Your task to perform on an android device: Show me the alarms in the clock app Image 0: 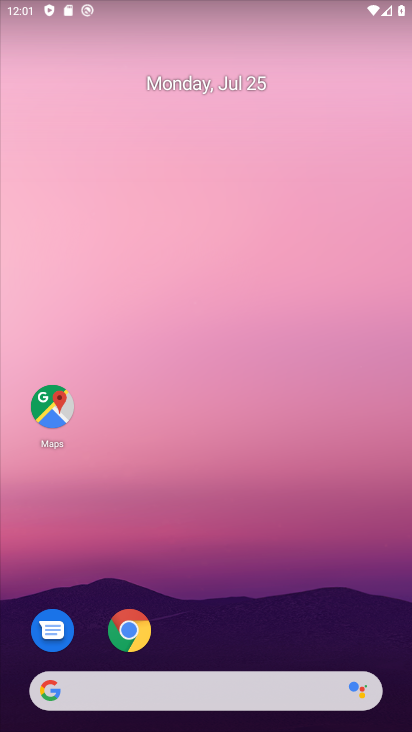
Step 0: drag from (184, 248) to (176, 88)
Your task to perform on an android device: Show me the alarms in the clock app Image 1: 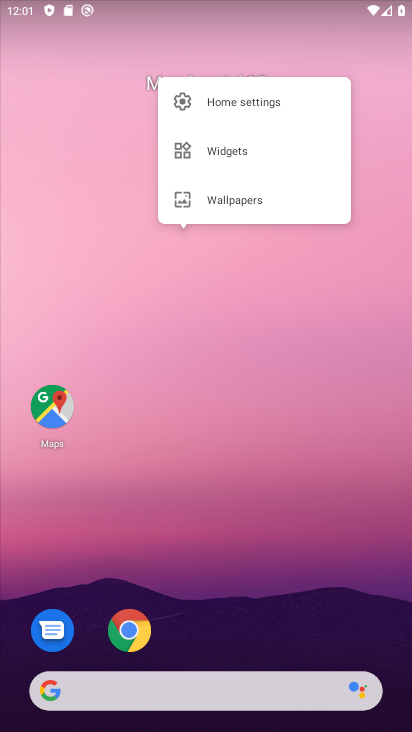
Step 1: drag from (282, 690) to (212, 226)
Your task to perform on an android device: Show me the alarms in the clock app Image 2: 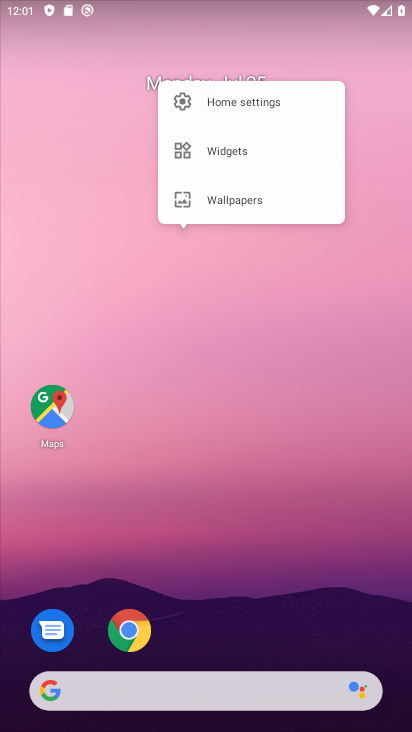
Step 2: drag from (207, 634) to (76, 179)
Your task to perform on an android device: Show me the alarms in the clock app Image 3: 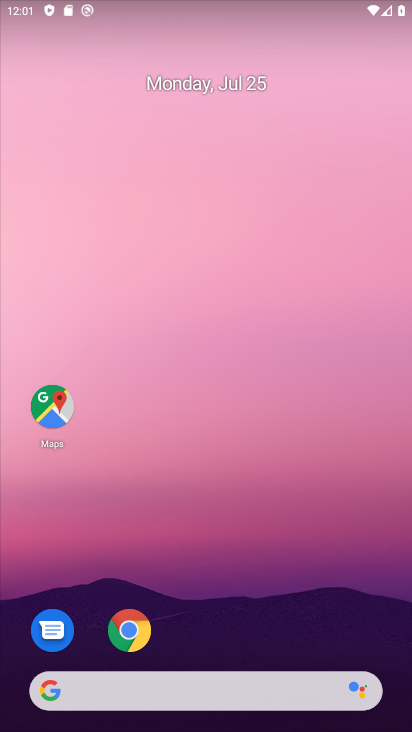
Step 3: drag from (126, 379) to (111, 115)
Your task to perform on an android device: Show me the alarms in the clock app Image 4: 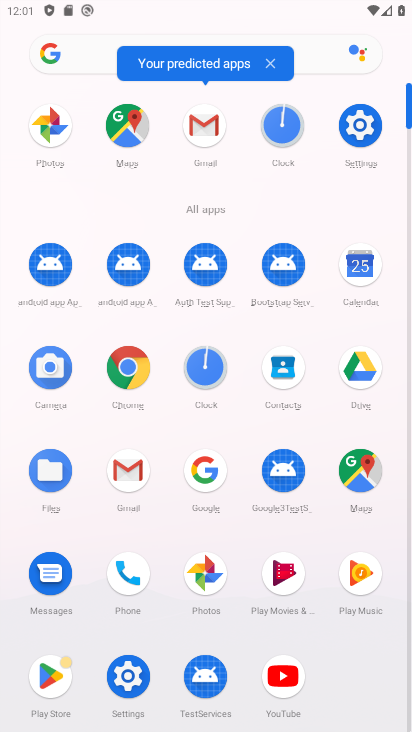
Step 4: click (201, 381)
Your task to perform on an android device: Show me the alarms in the clock app Image 5: 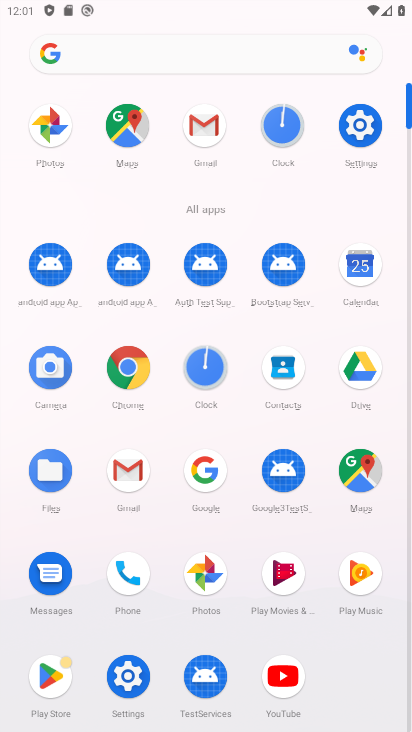
Step 5: click (201, 380)
Your task to perform on an android device: Show me the alarms in the clock app Image 6: 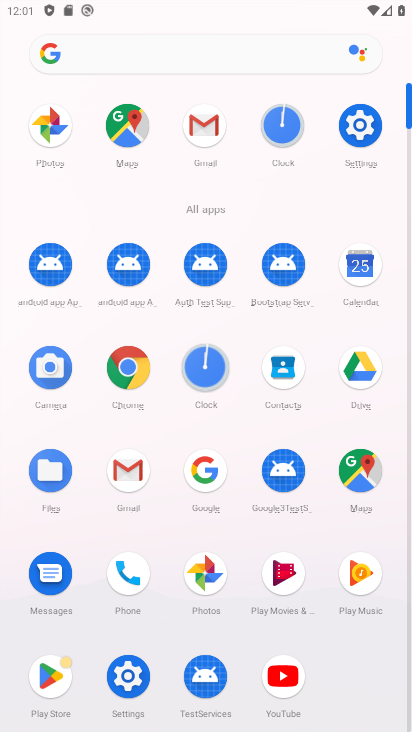
Step 6: click (201, 379)
Your task to perform on an android device: Show me the alarms in the clock app Image 7: 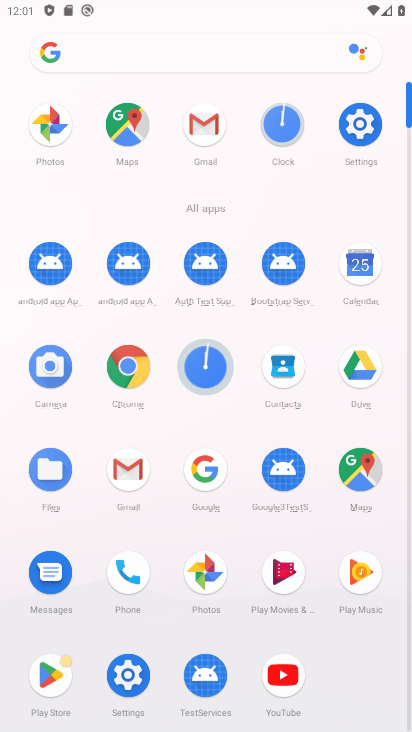
Step 7: click (202, 379)
Your task to perform on an android device: Show me the alarms in the clock app Image 8: 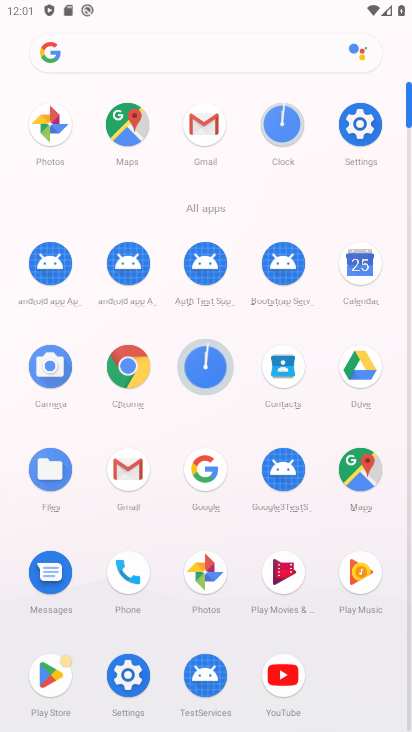
Step 8: click (207, 377)
Your task to perform on an android device: Show me the alarms in the clock app Image 9: 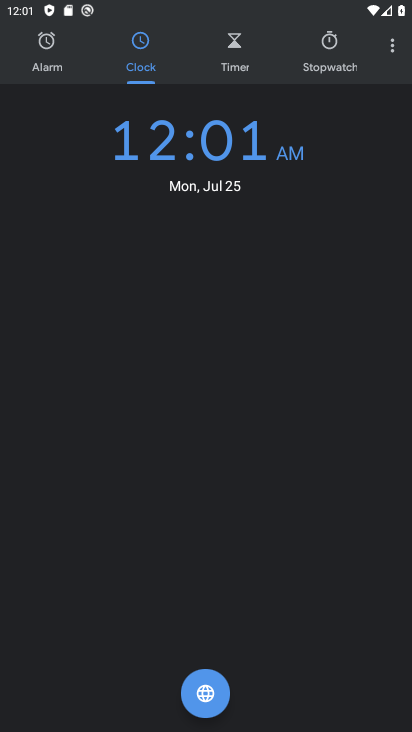
Step 9: click (47, 55)
Your task to perform on an android device: Show me the alarms in the clock app Image 10: 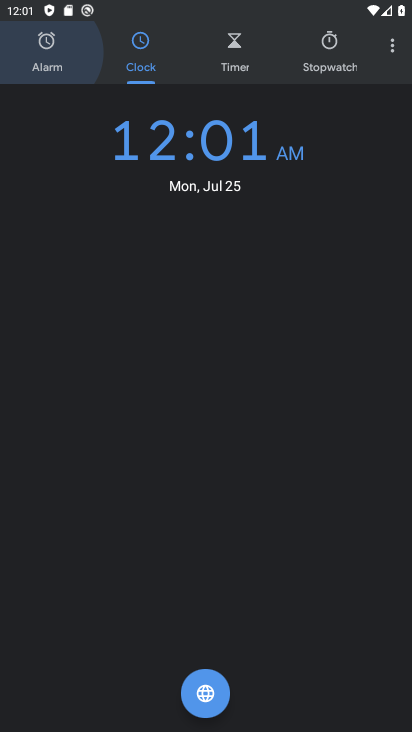
Step 10: click (45, 50)
Your task to perform on an android device: Show me the alarms in the clock app Image 11: 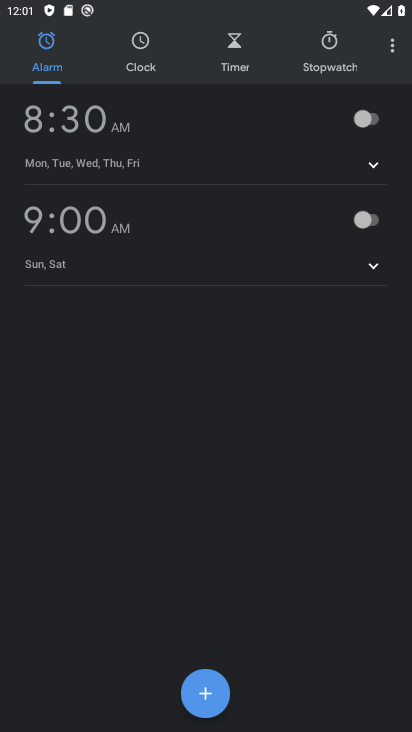
Step 11: click (361, 118)
Your task to perform on an android device: Show me the alarms in the clock app Image 12: 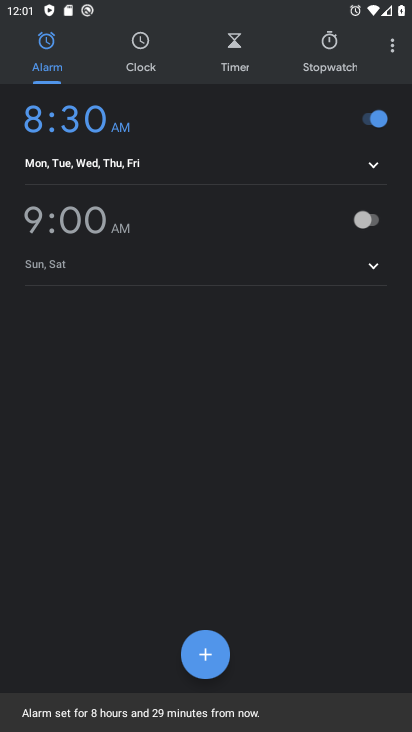
Step 12: task complete